Your task to perform on an android device: Open display settings Image 0: 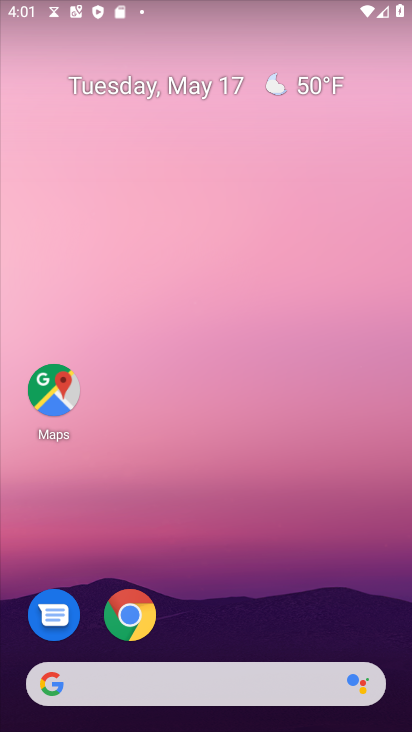
Step 0: drag from (308, 687) to (205, 41)
Your task to perform on an android device: Open display settings Image 1: 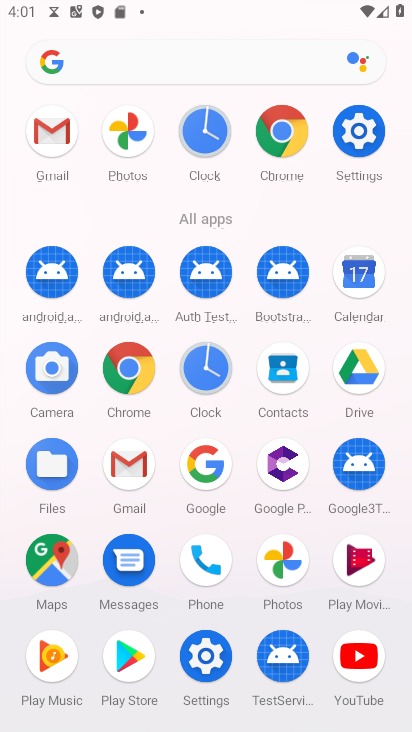
Step 1: click (199, 659)
Your task to perform on an android device: Open display settings Image 2: 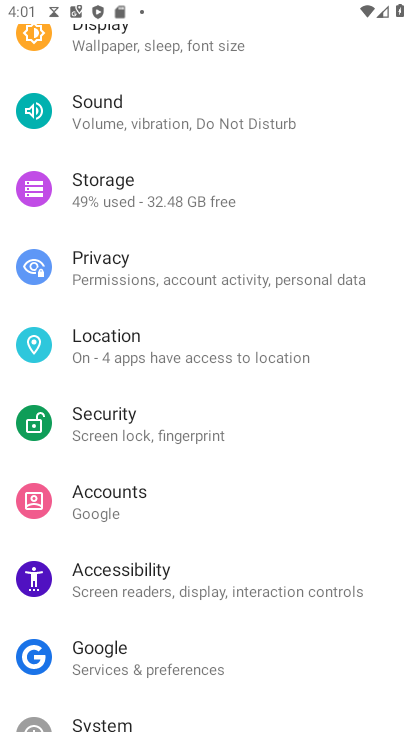
Step 2: click (102, 43)
Your task to perform on an android device: Open display settings Image 3: 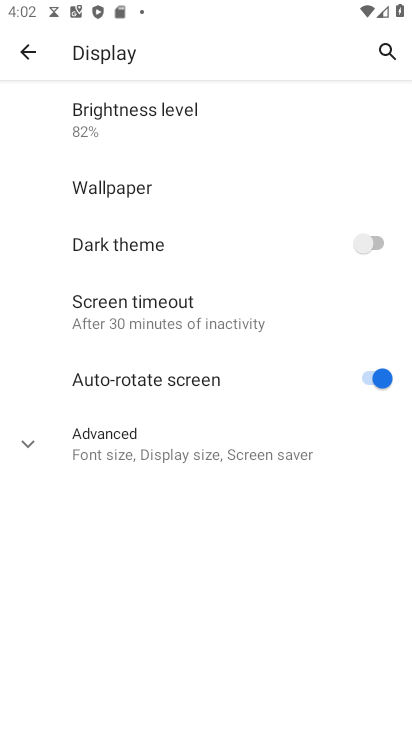
Step 3: task complete